Your task to perform on an android device: Open location settings Image 0: 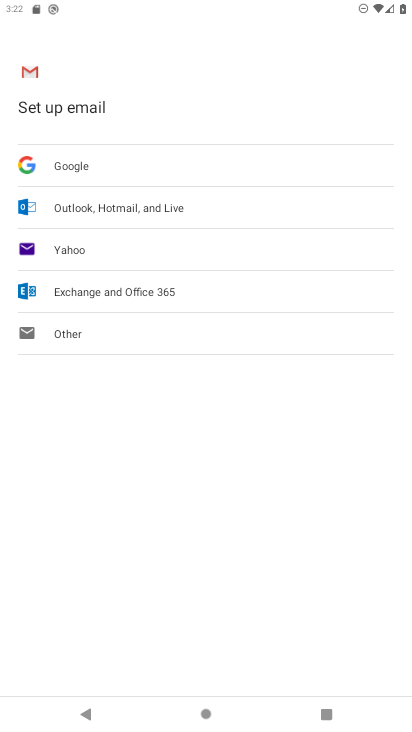
Step 0: press home button
Your task to perform on an android device: Open location settings Image 1: 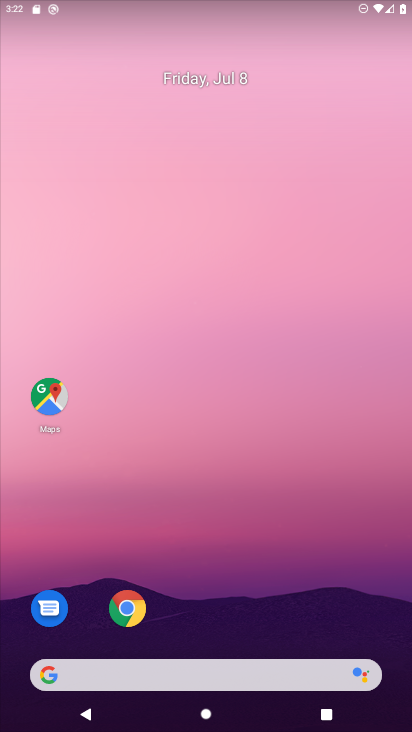
Step 1: drag from (256, 620) to (319, 111)
Your task to perform on an android device: Open location settings Image 2: 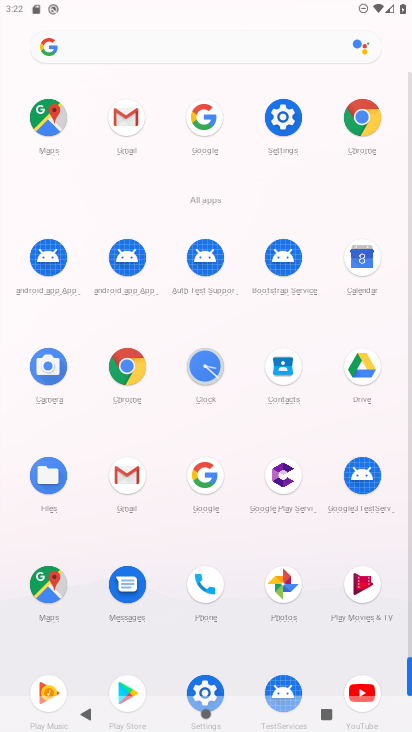
Step 2: click (218, 689)
Your task to perform on an android device: Open location settings Image 3: 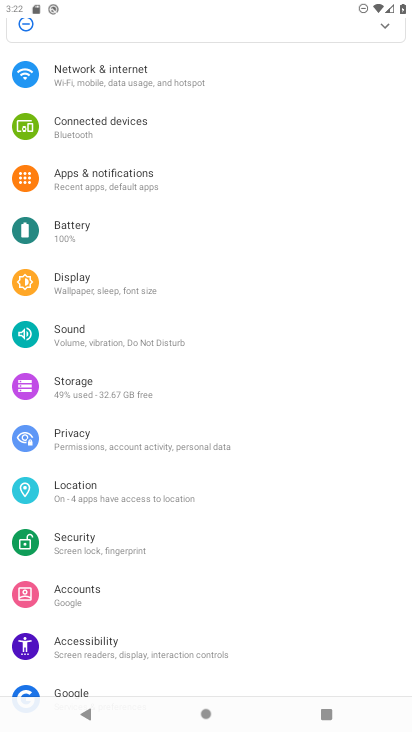
Step 3: click (85, 490)
Your task to perform on an android device: Open location settings Image 4: 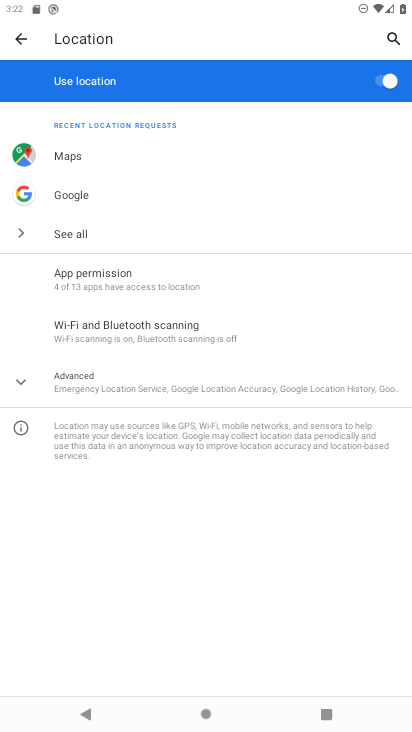
Step 4: task complete